Your task to perform on an android device: Open the calendar and show me this week's events Image 0: 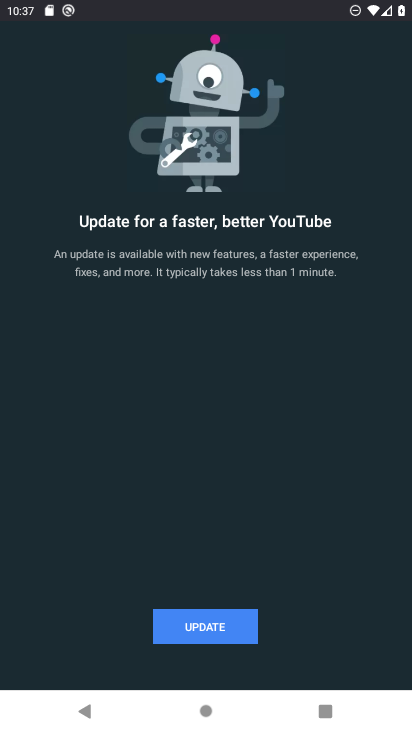
Step 0: press back button
Your task to perform on an android device: Open the calendar and show me this week's events Image 1: 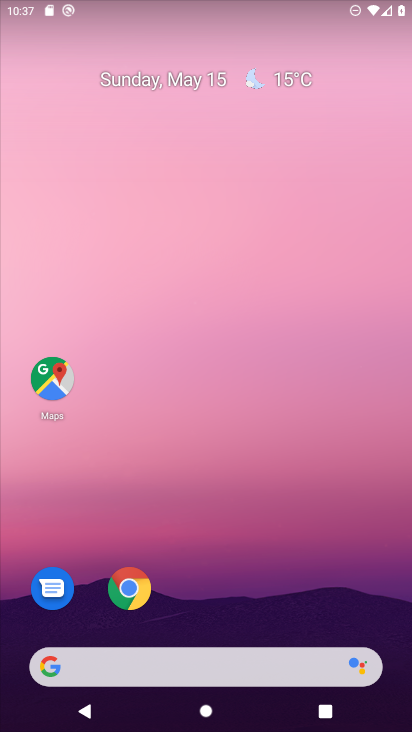
Step 1: drag from (275, 624) to (191, 3)
Your task to perform on an android device: Open the calendar and show me this week's events Image 2: 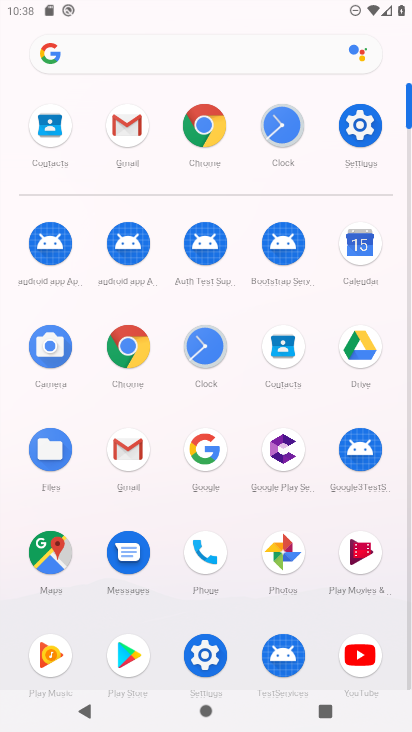
Step 2: click (373, 266)
Your task to perform on an android device: Open the calendar and show me this week's events Image 3: 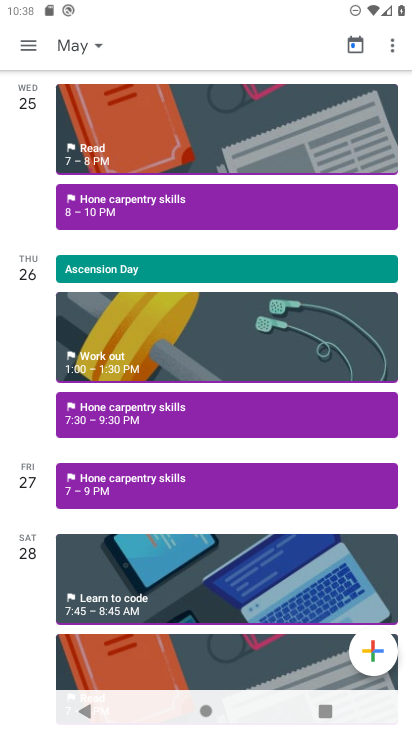
Step 3: click (30, 47)
Your task to perform on an android device: Open the calendar and show me this week's events Image 4: 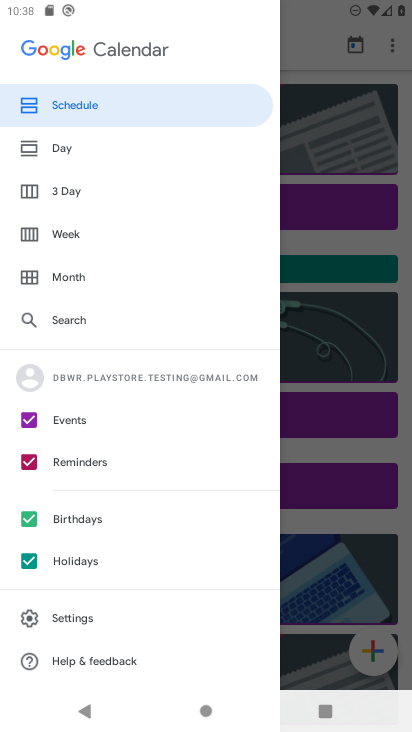
Step 4: click (47, 464)
Your task to perform on an android device: Open the calendar and show me this week's events Image 5: 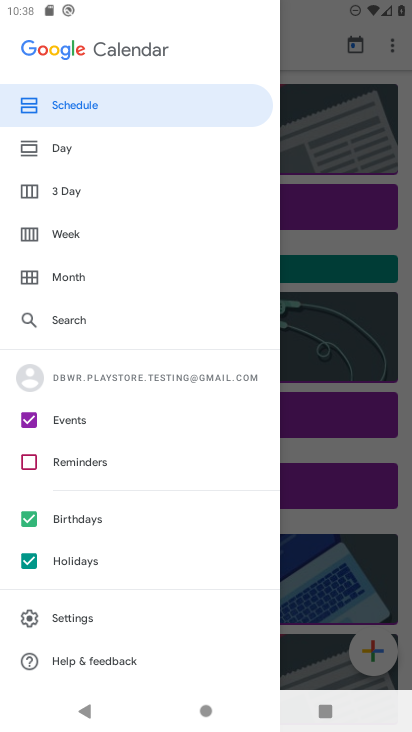
Step 5: click (25, 527)
Your task to perform on an android device: Open the calendar and show me this week's events Image 6: 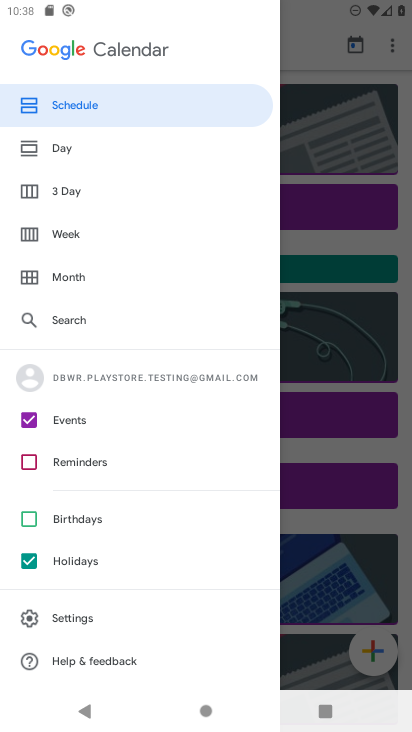
Step 6: click (30, 560)
Your task to perform on an android device: Open the calendar and show me this week's events Image 7: 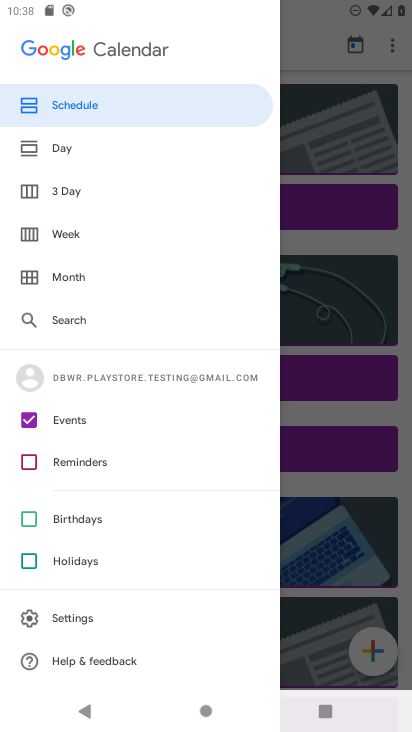
Step 7: click (66, 233)
Your task to perform on an android device: Open the calendar and show me this week's events Image 8: 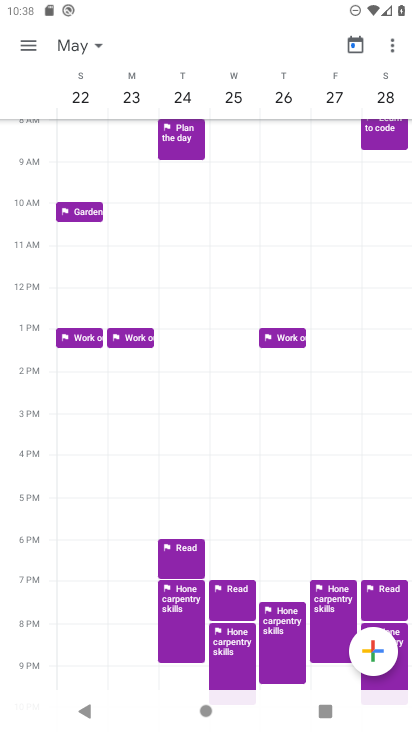
Step 8: task complete